Your task to perform on an android device: Open notification settings Image 0: 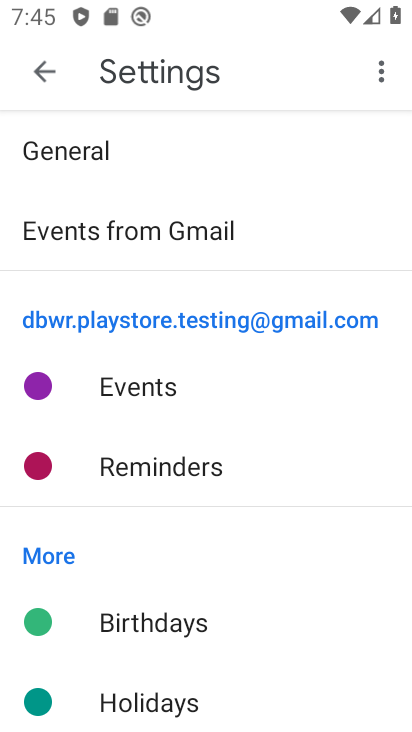
Step 0: press home button
Your task to perform on an android device: Open notification settings Image 1: 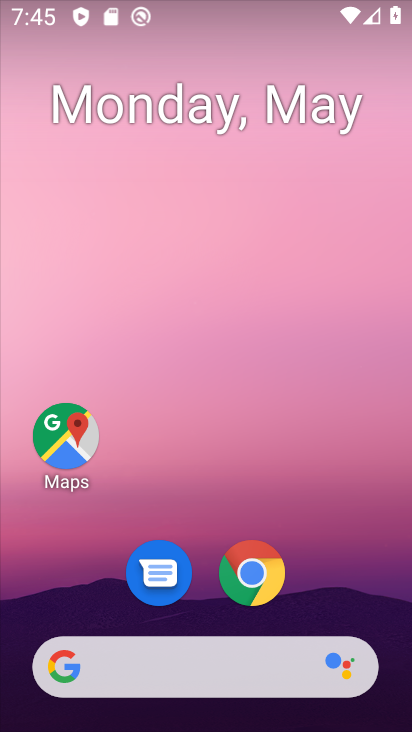
Step 1: click (270, 568)
Your task to perform on an android device: Open notification settings Image 2: 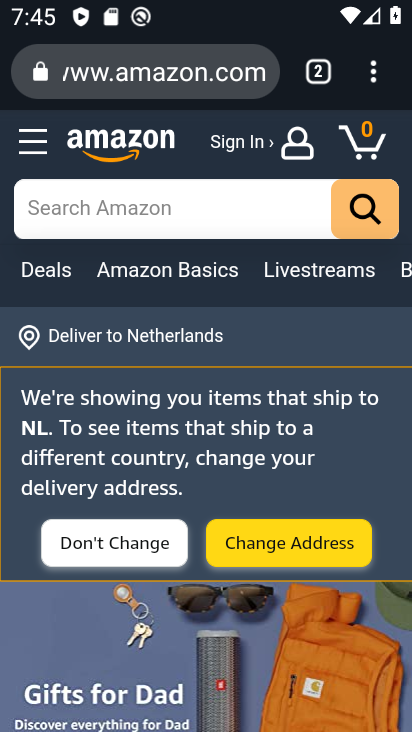
Step 2: click (378, 72)
Your task to perform on an android device: Open notification settings Image 3: 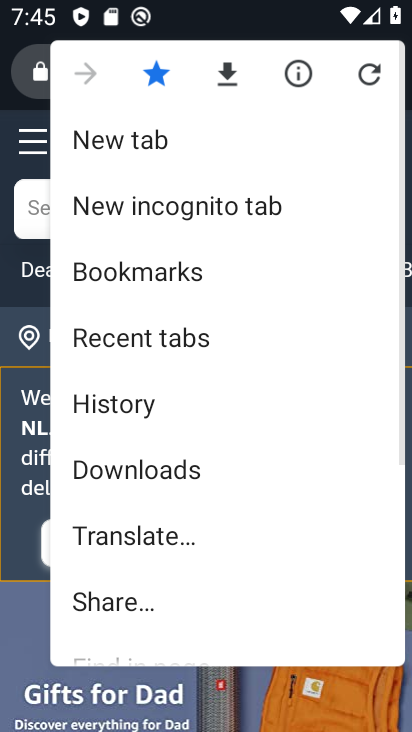
Step 3: drag from (162, 542) to (213, 201)
Your task to perform on an android device: Open notification settings Image 4: 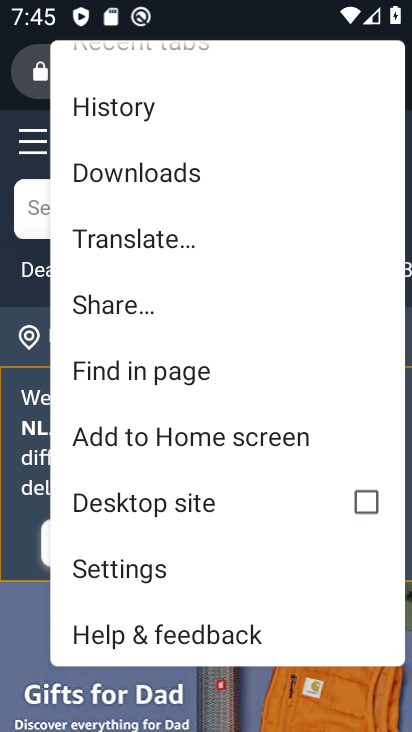
Step 4: click (172, 568)
Your task to perform on an android device: Open notification settings Image 5: 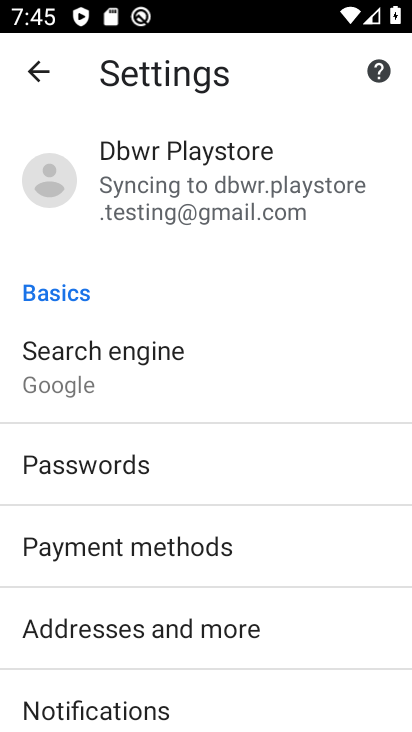
Step 5: click (241, 705)
Your task to perform on an android device: Open notification settings Image 6: 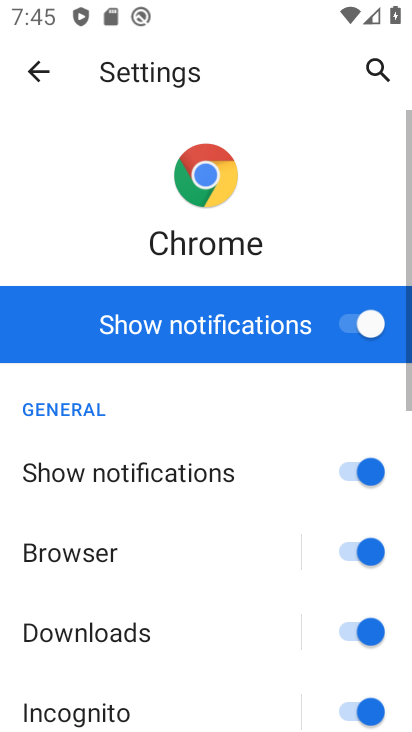
Step 6: click (353, 323)
Your task to perform on an android device: Open notification settings Image 7: 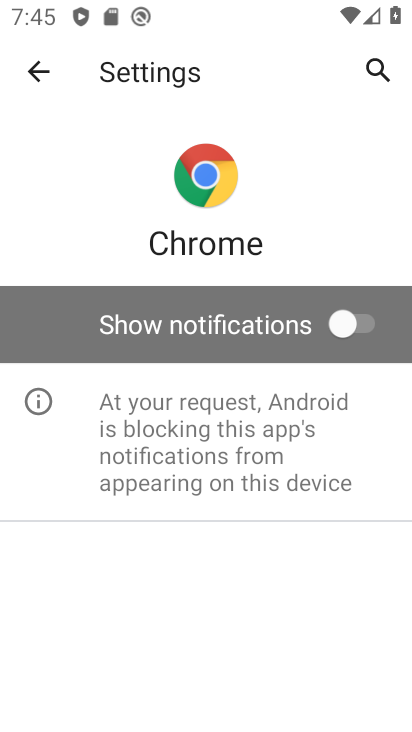
Step 7: task complete